Your task to perform on an android device: Do I have any events today? Image 0: 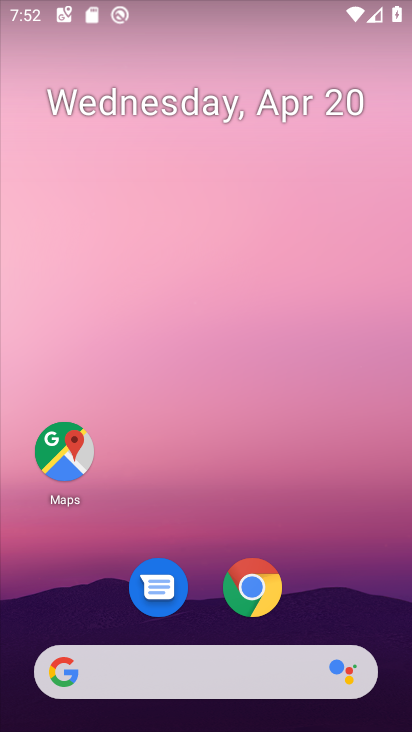
Step 0: drag from (365, 613) to (218, 130)
Your task to perform on an android device: Do I have any events today? Image 1: 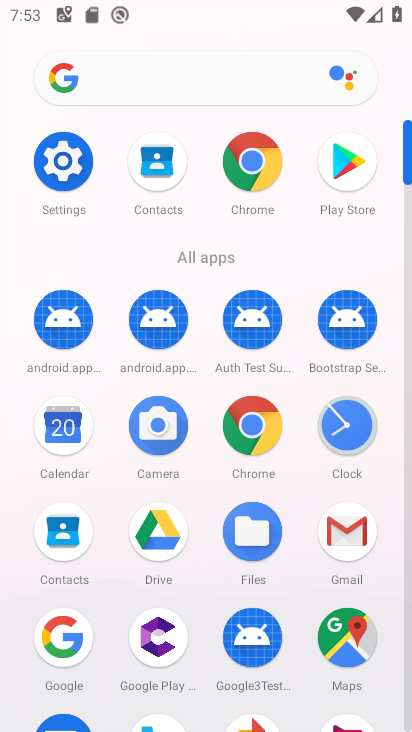
Step 1: click (64, 418)
Your task to perform on an android device: Do I have any events today? Image 2: 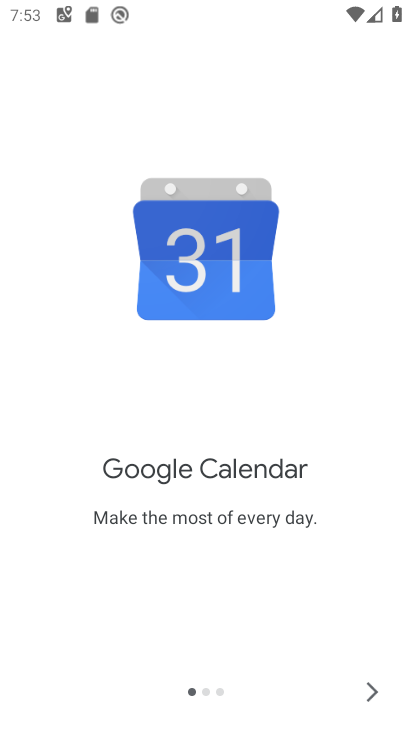
Step 2: click (356, 705)
Your task to perform on an android device: Do I have any events today? Image 3: 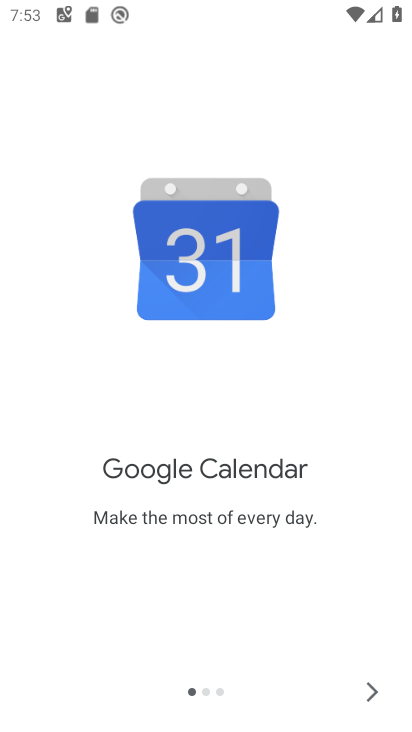
Step 3: click (356, 705)
Your task to perform on an android device: Do I have any events today? Image 4: 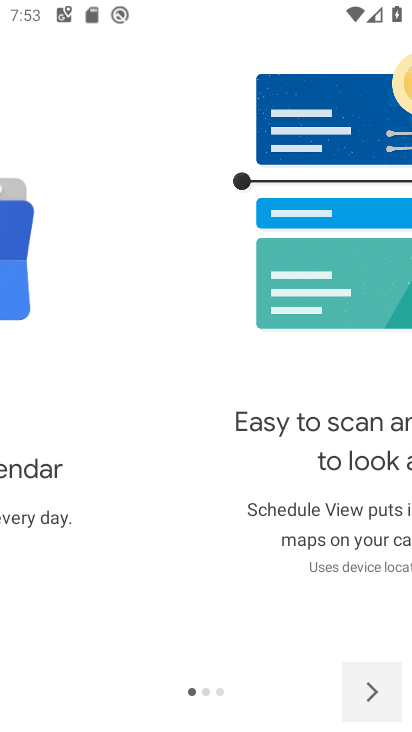
Step 4: click (356, 705)
Your task to perform on an android device: Do I have any events today? Image 5: 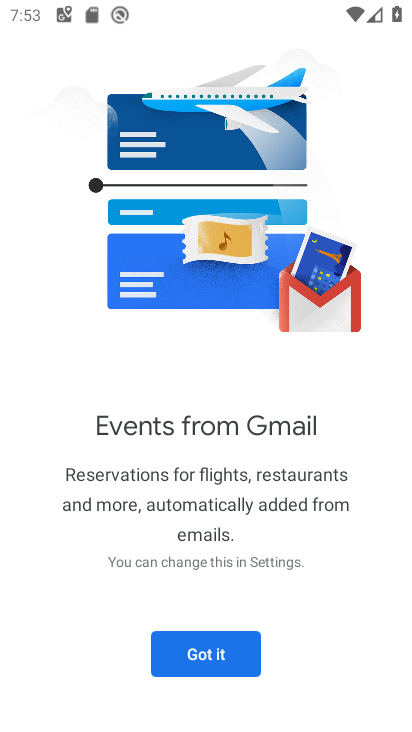
Step 5: click (205, 648)
Your task to perform on an android device: Do I have any events today? Image 6: 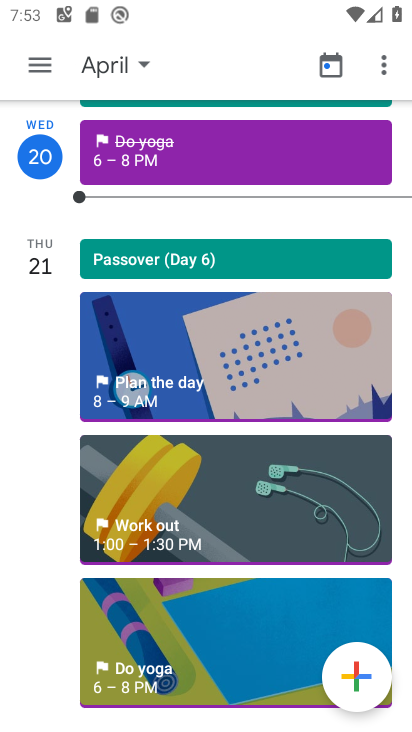
Step 6: click (37, 252)
Your task to perform on an android device: Do I have any events today? Image 7: 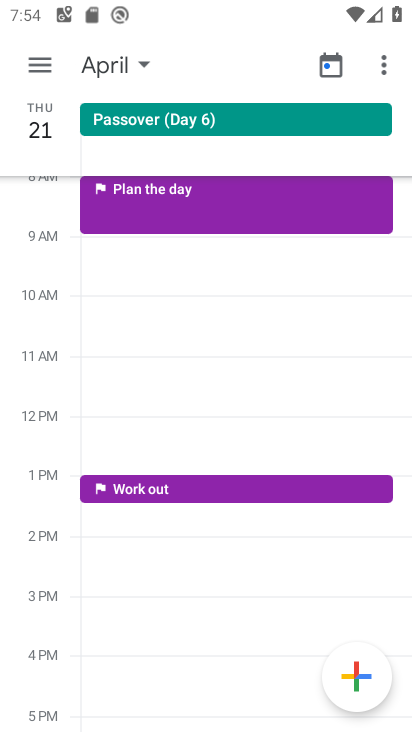
Step 7: task complete